Your task to perform on an android device: Open Google Chrome and click the shortcut for Amazon.com Image 0: 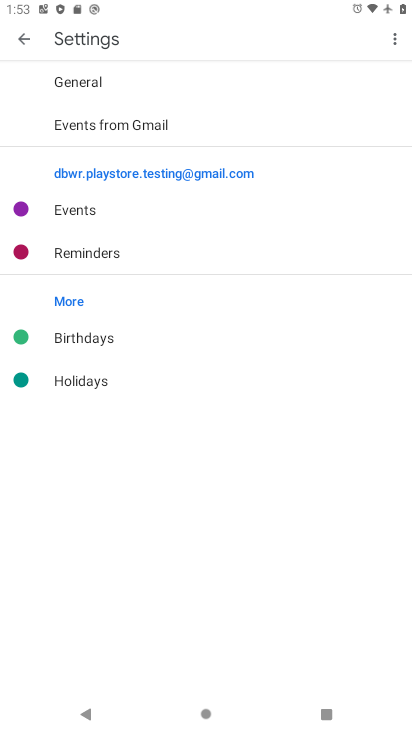
Step 0: press home button
Your task to perform on an android device: Open Google Chrome and click the shortcut for Amazon.com Image 1: 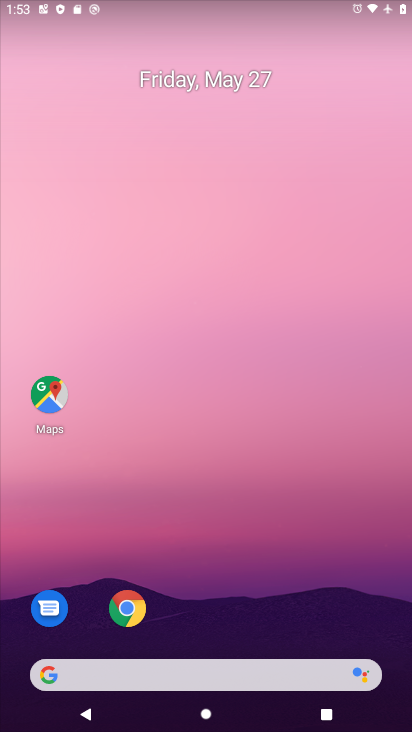
Step 1: click (135, 600)
Your task to perform on an android device: Open Google Chrome and click the shortcut for Amazon.com Image 2: 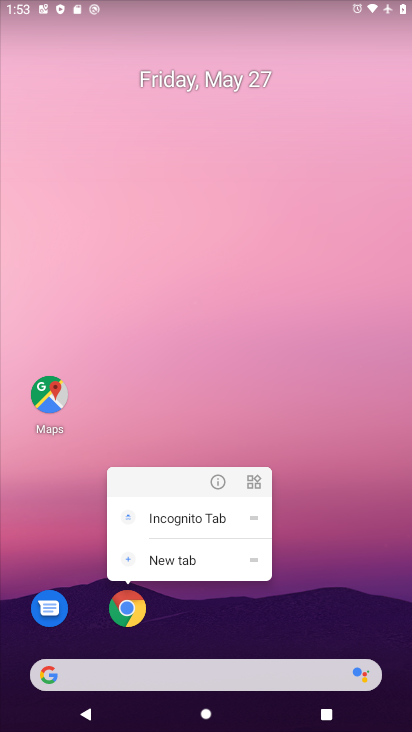
Step 2: click (129, 605)
Your task to perform on an android device: Open Google Chrome and click the shortcut for Amazon.com Image 3: 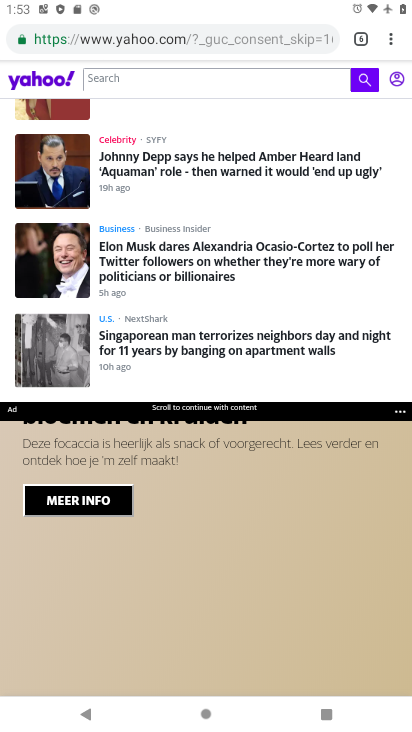
Step 3: drag from (390, 31) to (270, 80)
Your task to perform on an android device: Open Google Chrome and click the shortcut for Amazon.com Image 4: 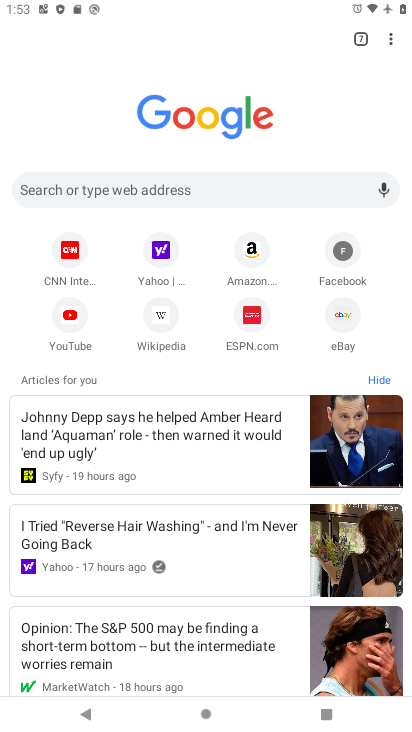
Step 4: click (244, 243)
Your task to perform on an android device: Open Google Chrome and click the shortcut for Amazon.com Image 5: 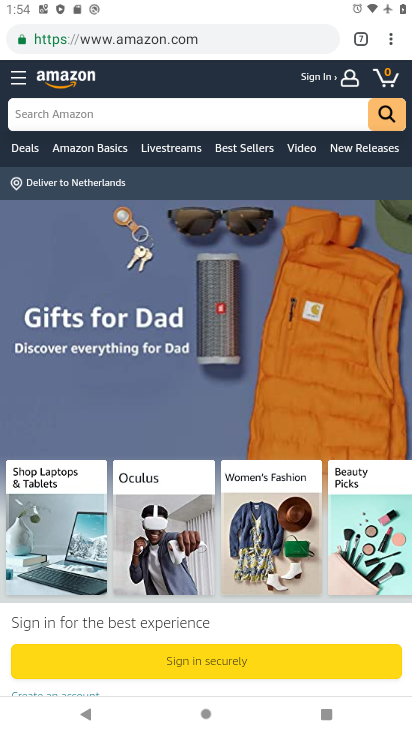
Step 5: task complete